Your task to perform on an android device: check storage Image 0: 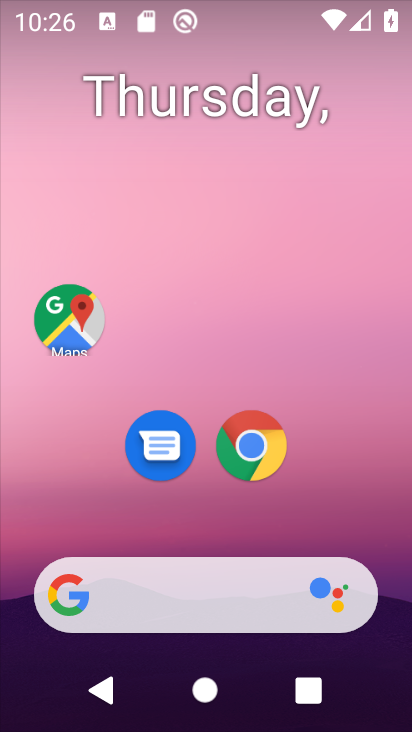
Step 0: press home button
Your task to perform on an android device: check storage Image 1: 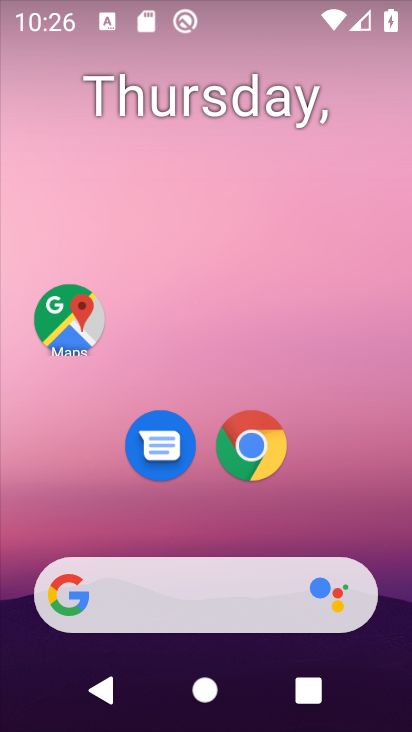
Step 1: click (200, 221)
Your task to perform on an android device: check storage Image 2: 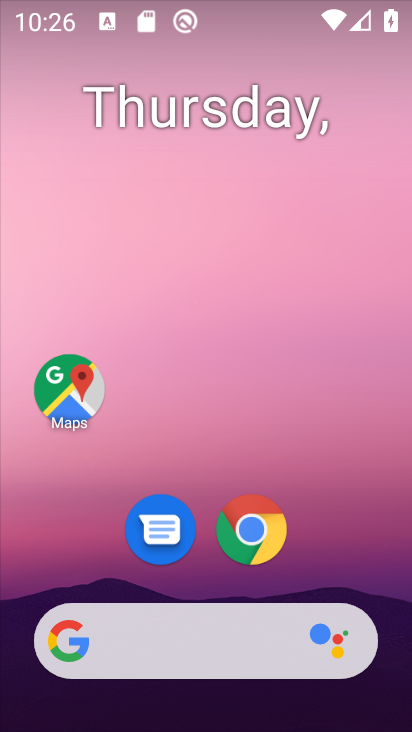
Step 2: drag from (203, 677) to (326, 28)
Your task to perform on an android device: check storage Image 3: 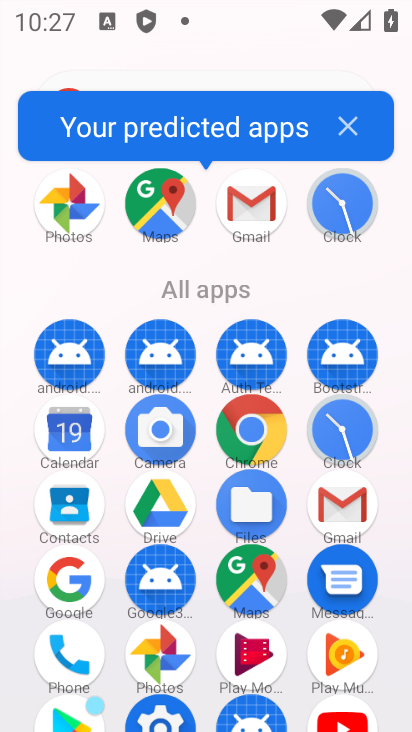
Step 3: drag from (233, 563) to (297, 60)
Your task to perform on an android device: check storage Image 4: 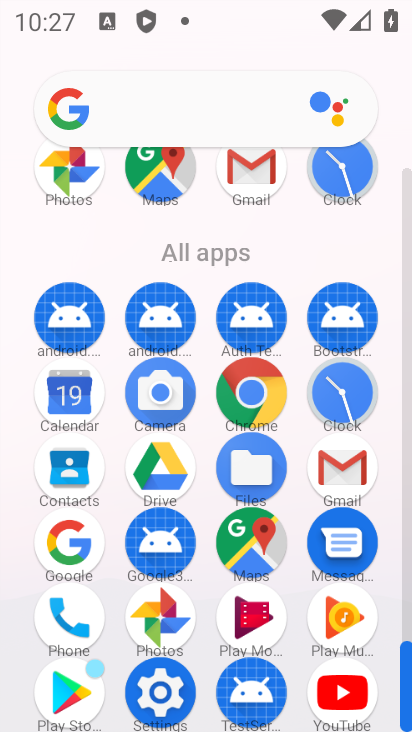
Step 4: click (152, 707)
Your task to perform on an android device: check storage Image 5: 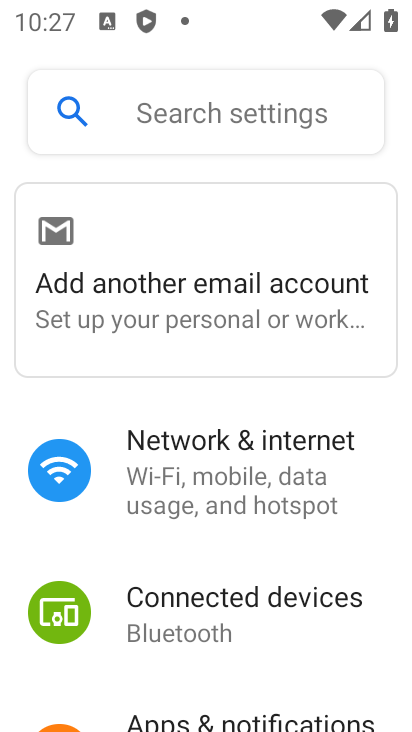
Step 5: drag from (270, 571) to (298, 346)
Your task to perform on an android device: check storage Image 6: 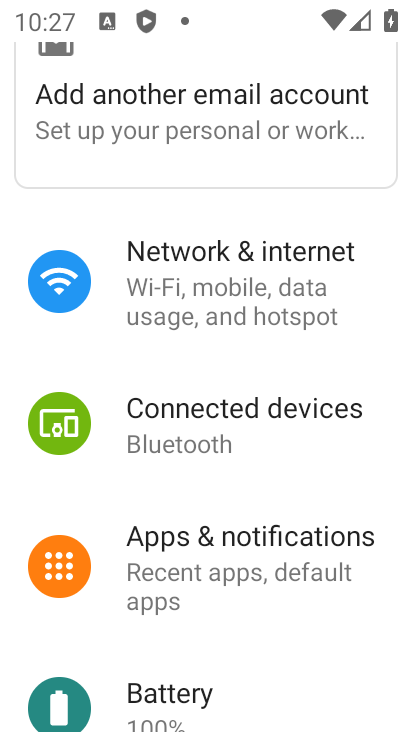
Step 6: drag from (259, 654) to (341, 346)
Your task to perform on an android device: check storage Image 7: 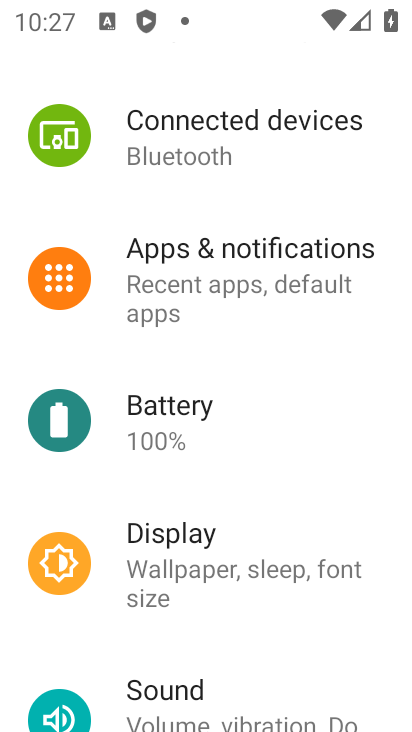
Step 7: drag from (244, 586) to (296, 353)
Your task to perform on an android device: check storage Image 8: 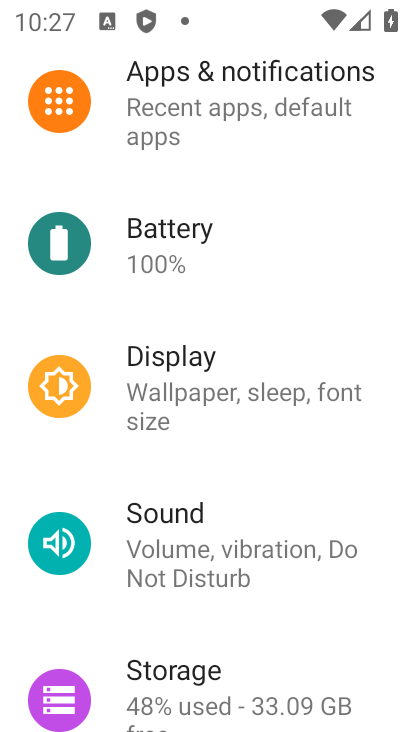
Step 8: drag from (230, 628) to (263, 450)
Your task to perform on an android device: check storage Image 9: 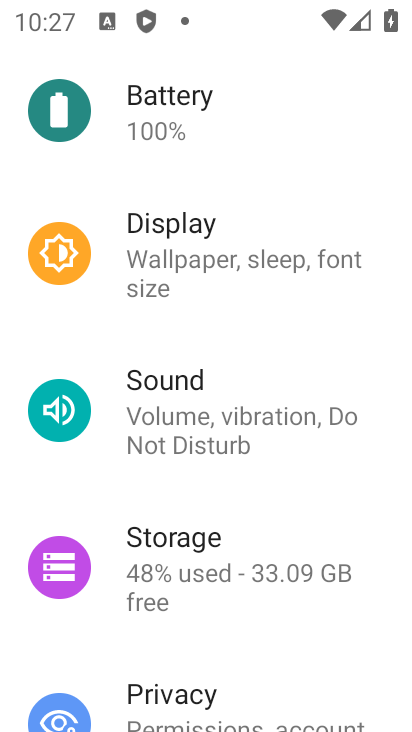
Step 9: drag from (268, 557) to (327, 323)
Your task to perform on an android device: check storage Image 10: 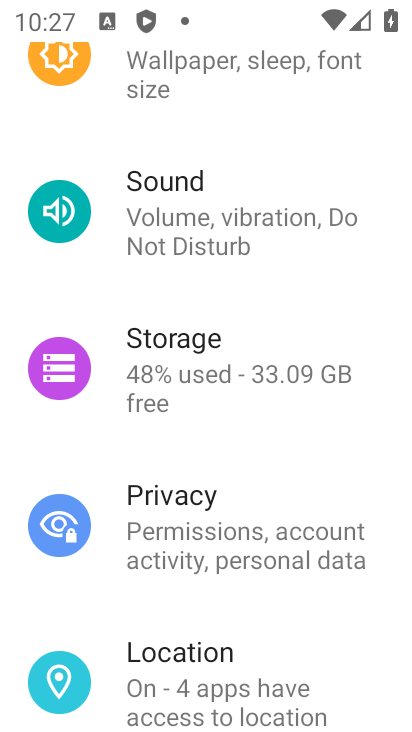
Step 10: click (277, 362)
Your task to perform on an android device: check storage Image 11: 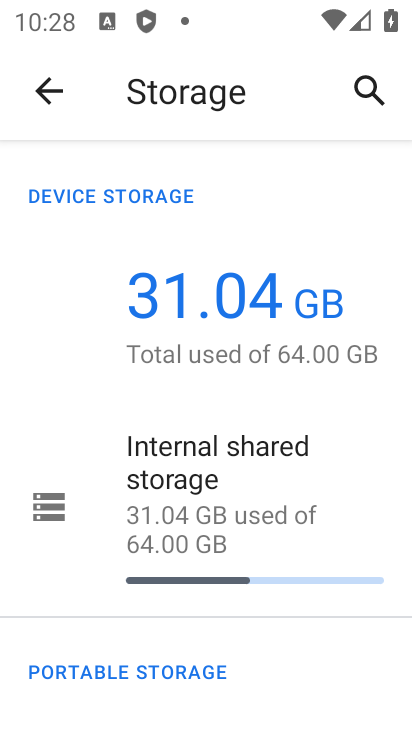
Step 11: click (262, 494)
Your task to perform on an android device: check storage Image 12: 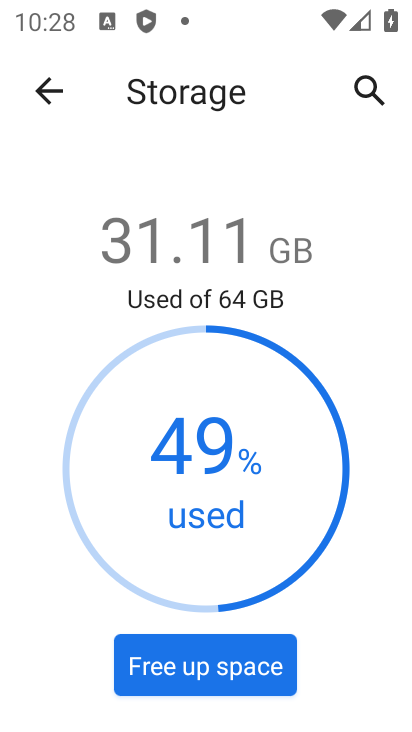
Step 12: task complete